Your task to perform on an android device: Open calendar and show me the third week of next month Image 0: 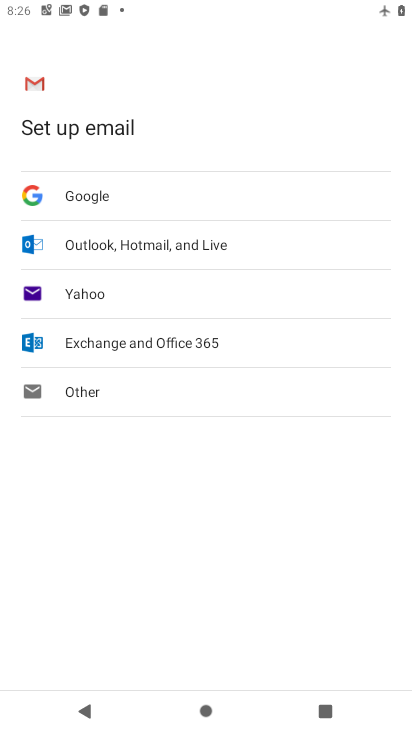
Step 0: press home button
Your task to perform on an android device: Open calendar and show me the third week of next month Image 1: 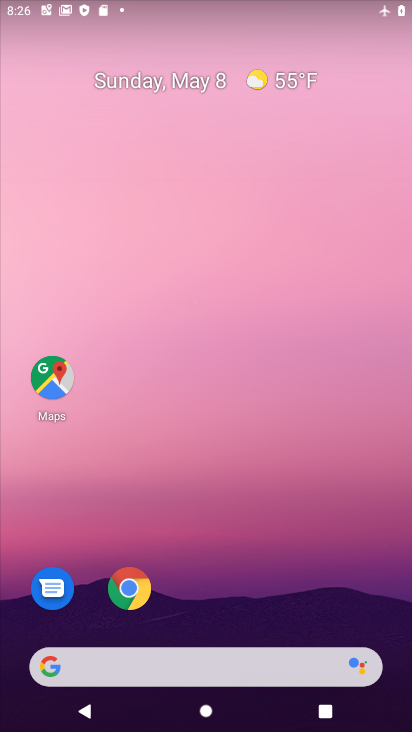
Step 1: drag from (318, 604) to (202, 31)
Your task to perform on an android device: Open calendar and show me the third week of next month Image 2: 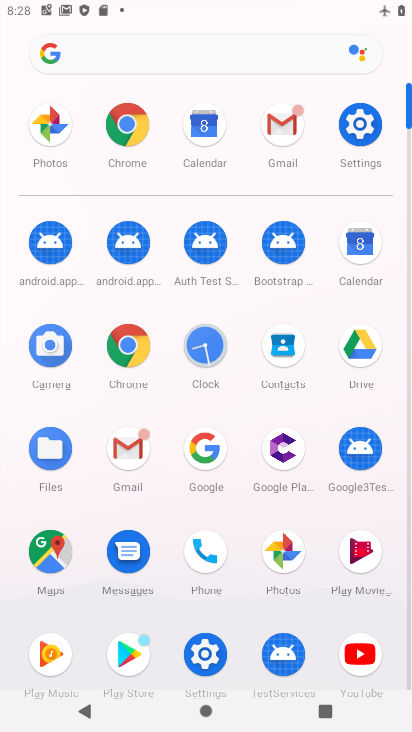
Step 2: click (358, 244)
Your task to perform on an android device: Open calendar and show me the third week of next month Image 3: 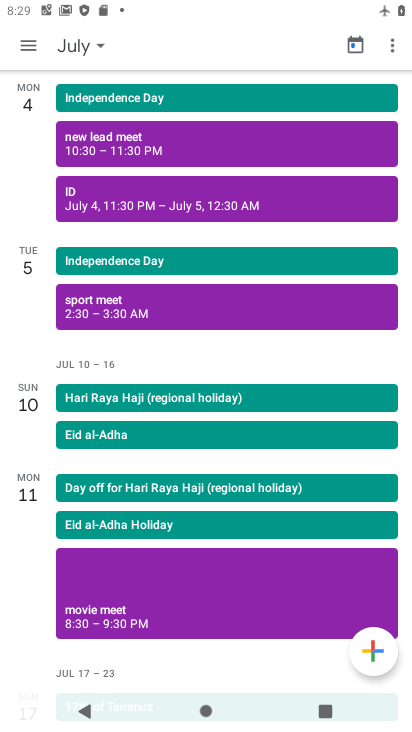
Step 3: click (81, 53)
Your task to perform on an android device: Open calendar and show me the third week of next month Image 4: 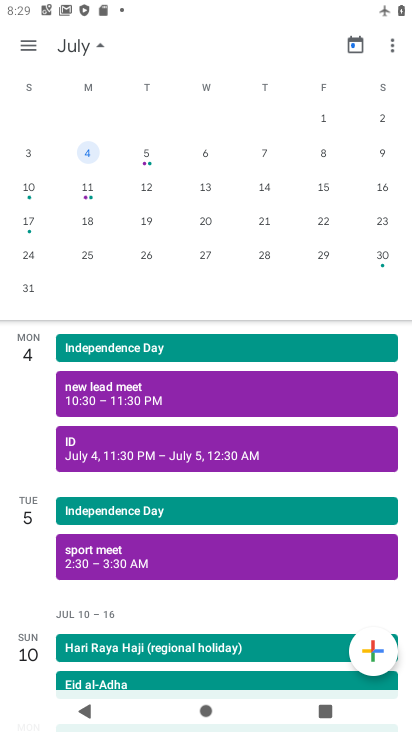
Step 4: drag from (349, 197) to (14, 177)
Your task to perform on an android device: Open calendar and show me the third week of next month Image 5: 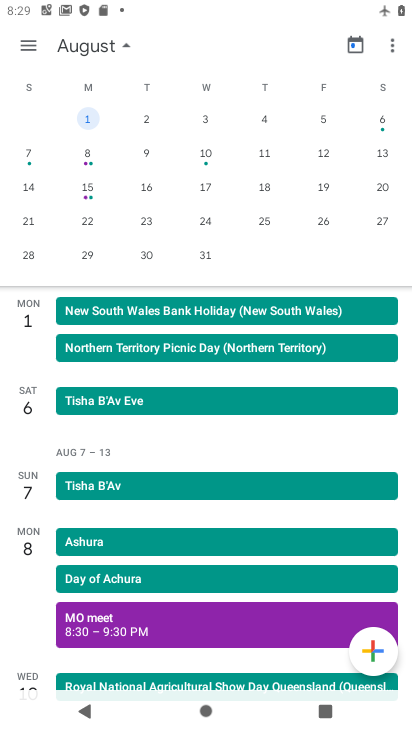
Step 5: click (206, 224)
Your task to perform on an android device: Open calendar and show me the third week of next month Image 6: 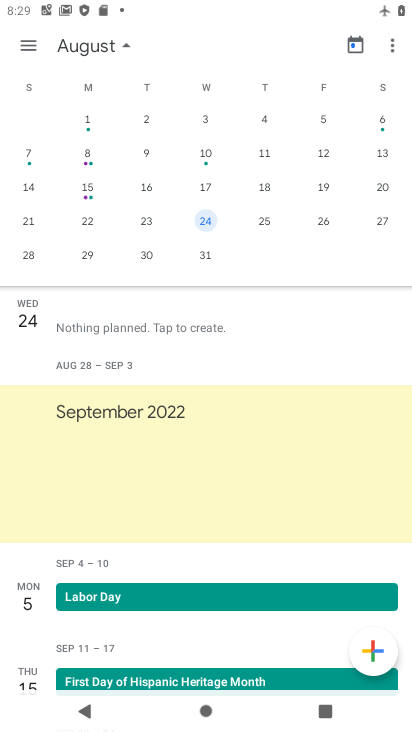
Step 6: task complete